Your task to perform on an android device: Check the weather Image 0: 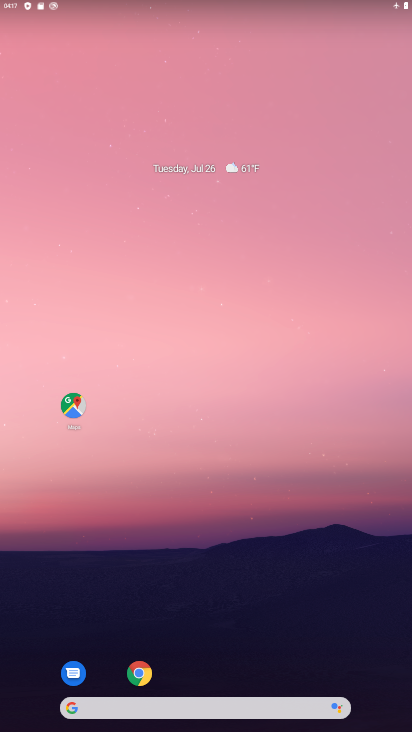
Step 0: click (232, 168)
Your task to perform on an android device: Check the weather Image 1: 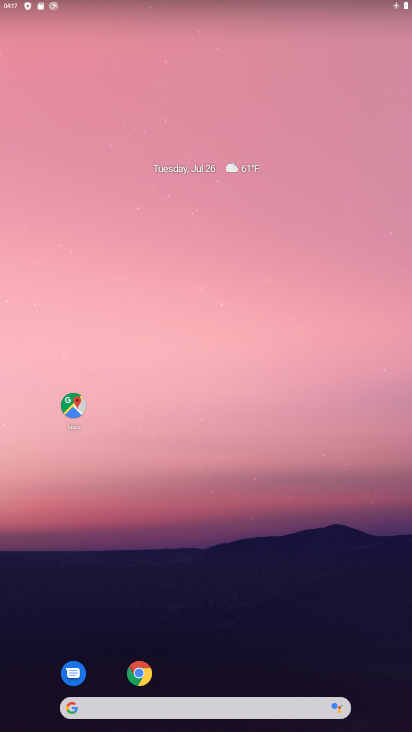
Step 1: click (246, 172)
Your task to perform on an android device: Check the weather Image 2: 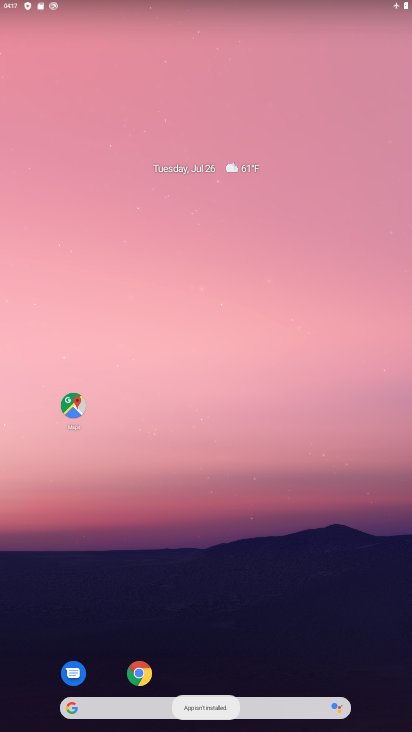
Step 2: click (238, 163)
Your task to perform on an android device: Check the weather Image 3: 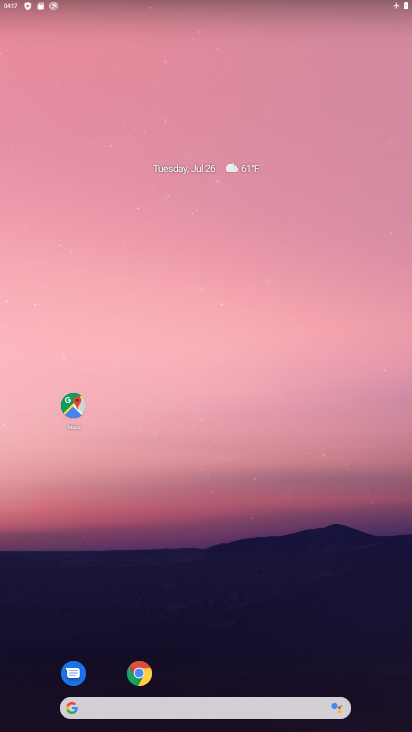
Step 3: drag from (216, 666) to (257, 6)
Your task to perform on an android device: Check the weather Image 4: 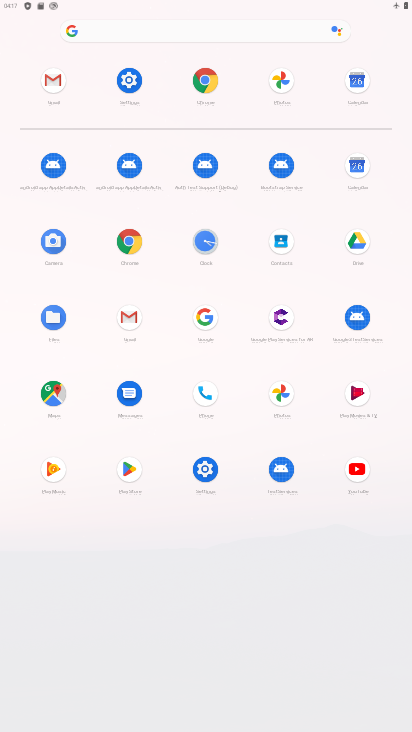
Step 4: click (218, 30)
Your task to perform on an android device: Check the weather Image 5: 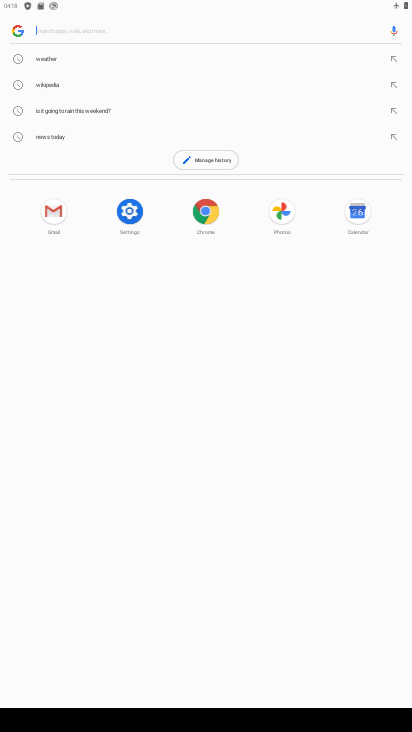
Step 5: click (51, 55)
Your task to perform on an android device: Check the weather Image 6: 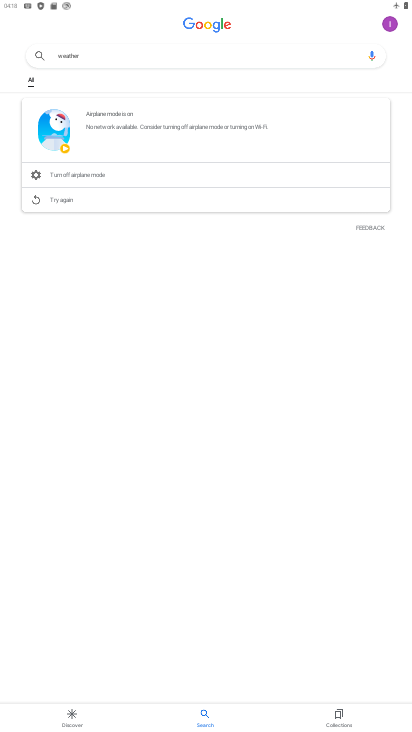
Step 6: task complete